Your task to perform on an android device: What's the weather going to be this weekend? Image 0: 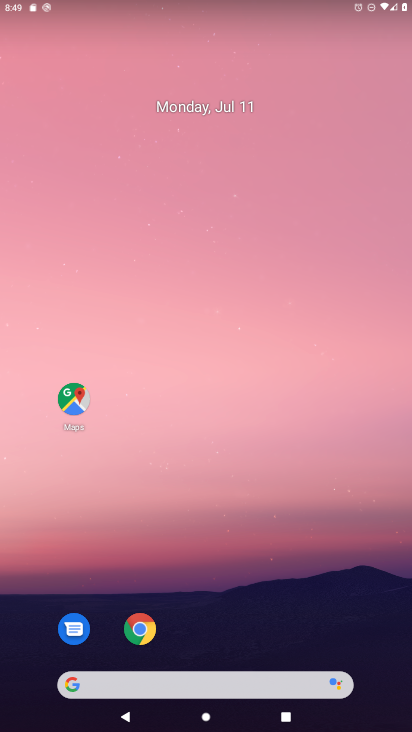
Step 0: drag from (223, 653) to (280, 147)
Your task to perform on an android device: What's the weather going to be this weekend? Image 1: 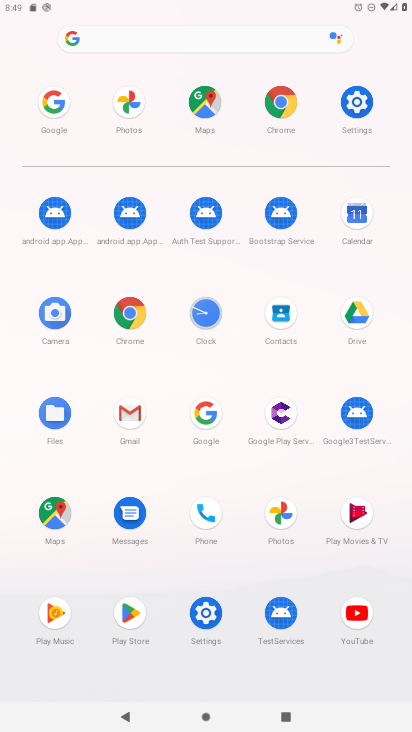
Step 1: click (207, 418)
Your task to perform on an android device: What's the weather going to be this weekend? Image 2: 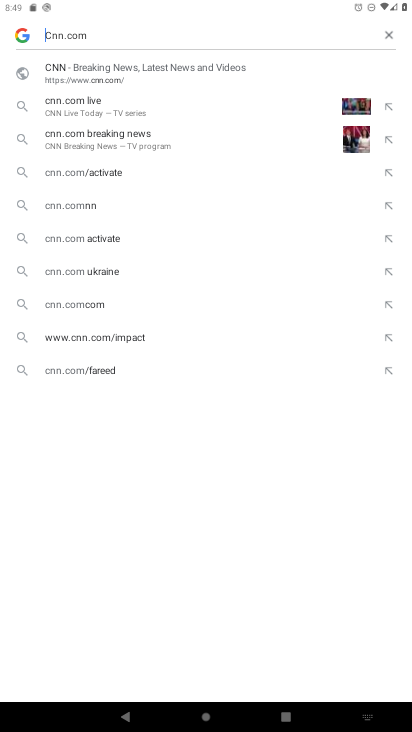
Step 2: click (392, 34)
Your task to perform on an android device: What's the weather going to be this weekend? Image 3: 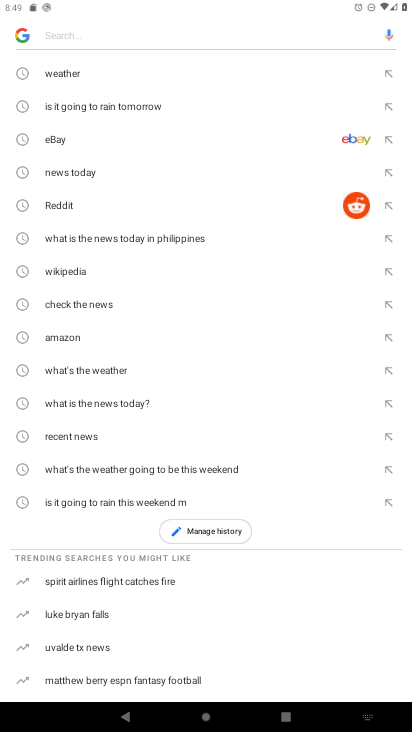
Step 3: type "weather going to be this weekend?"
Your task to perform on an android device: What's the weather going to be this weekend? Image 4: 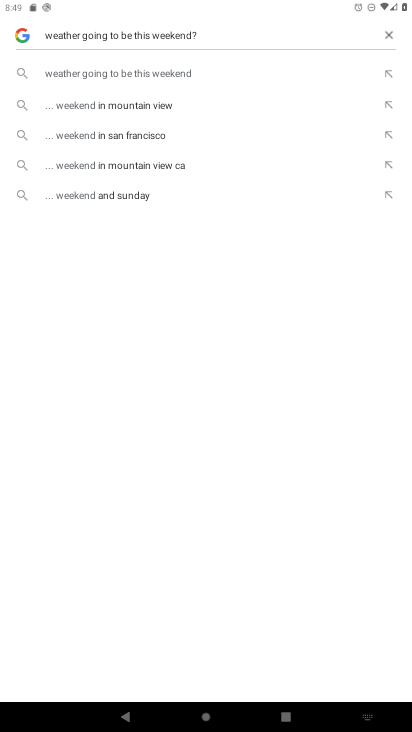
Step 4: click (192, 75)
Your task to perform on an android device: What's the weather going to be this weekend? Image 5: 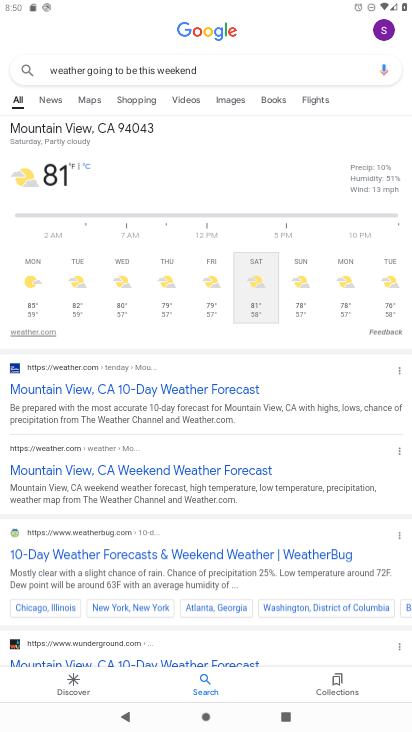
Step 5: task complete